Your task to perform on an android device: check storage Image 0: 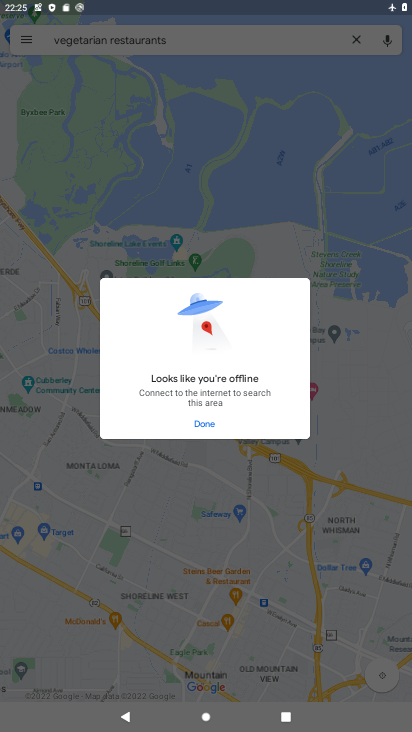
Step 0: press home button
Your task to perform on an android device: check storage Image 1: 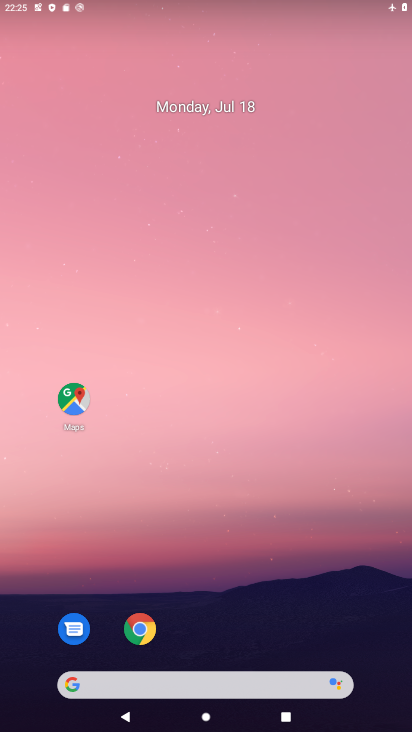
Step 1: drag from (331, 500) to (215, 0)
Your task to perform on an android device: check storage Image 2: 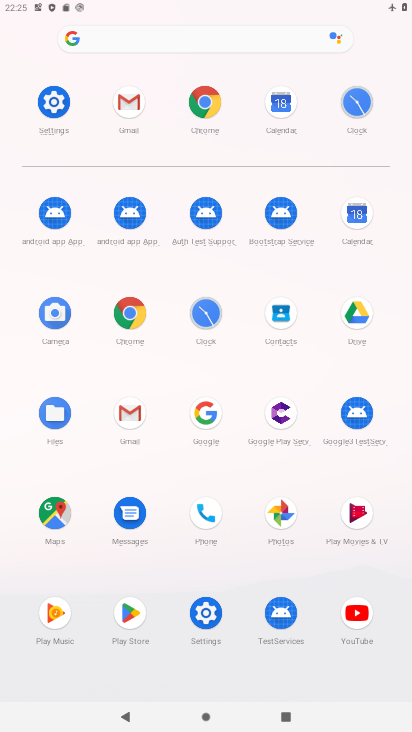
Step 2: click (59, 113)
Your task to perform on an android device: check storage Image 3: 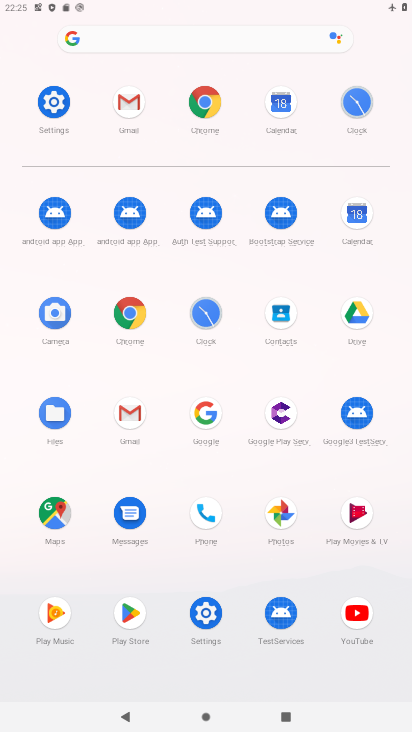
Step 3: click (55, 102)
Your task to perform on an android device: check storage Image 4: 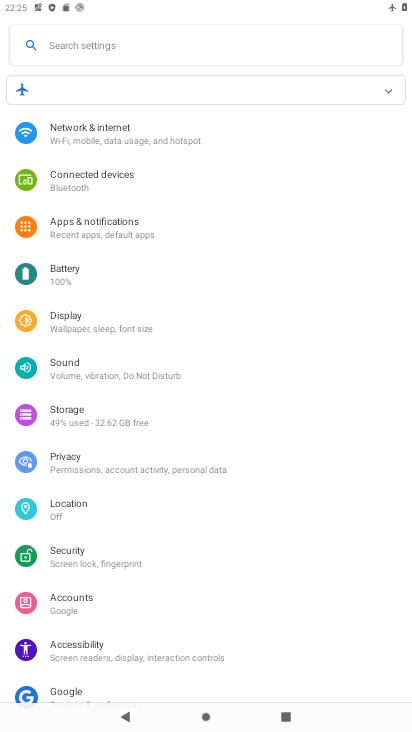
Step 4: click (105, 421)
Your task to perform on an android device: check storage Image 5: 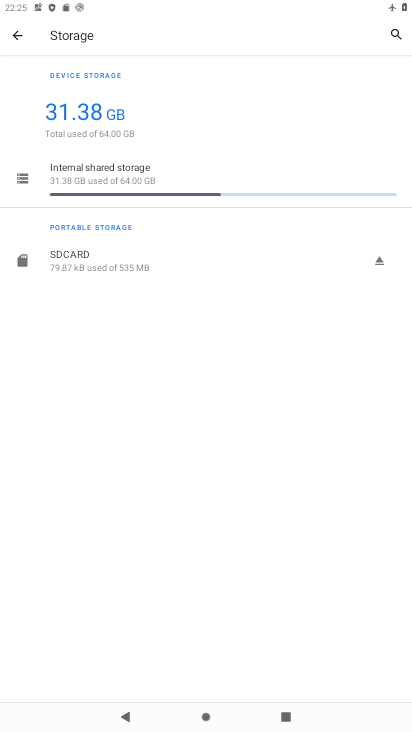
Step 5: task complete